Your task to perform on an android device: open sync settings in chrome Image 0: 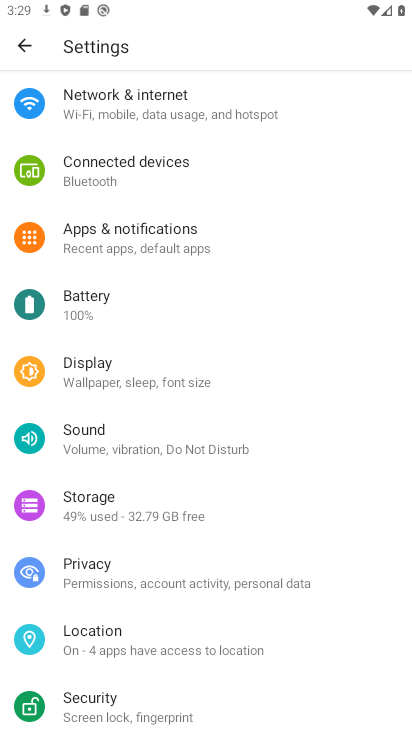
Step 0: press home button
Your task to perform on an android device: open sync settings in chrome Image 1: 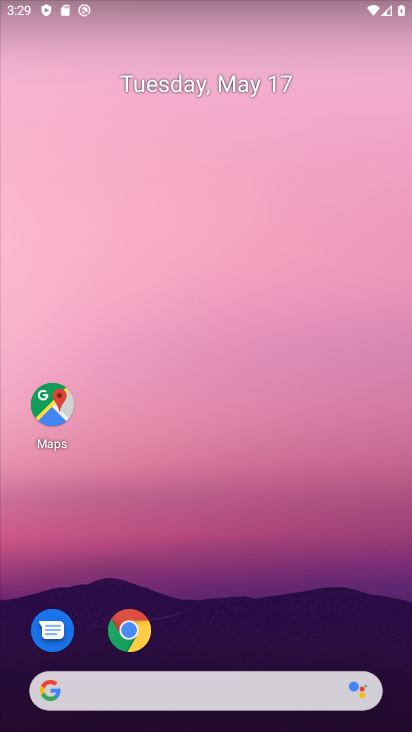
Step 1: click (119, 632)
Your task to perform on an android device: open sync settings in chrome Image 2: 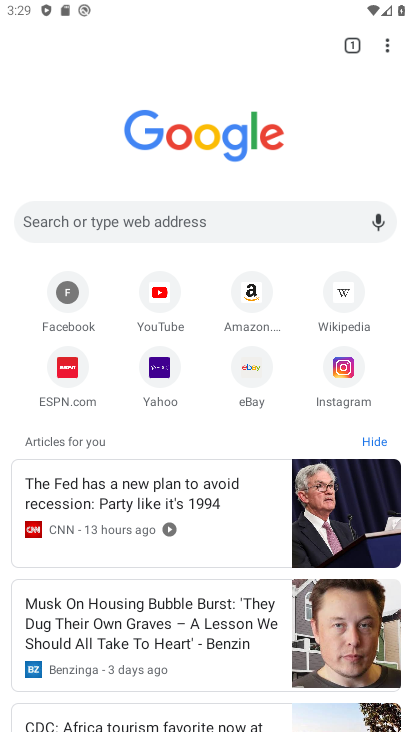
Step 2: drag from (394, 45) to (321, 380)
Your task to perform on an android device: open sync settings in chrome Image 3: 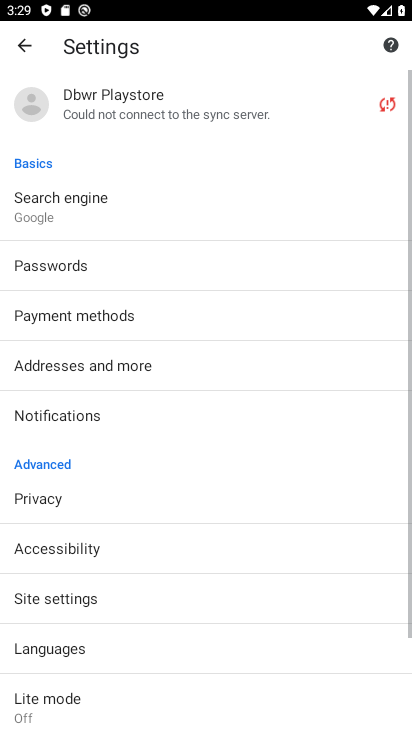
Step 3: drag from (145, 639) to (252, 413)
Your task to perform on an android device: open sync settings in chrome Image 4: 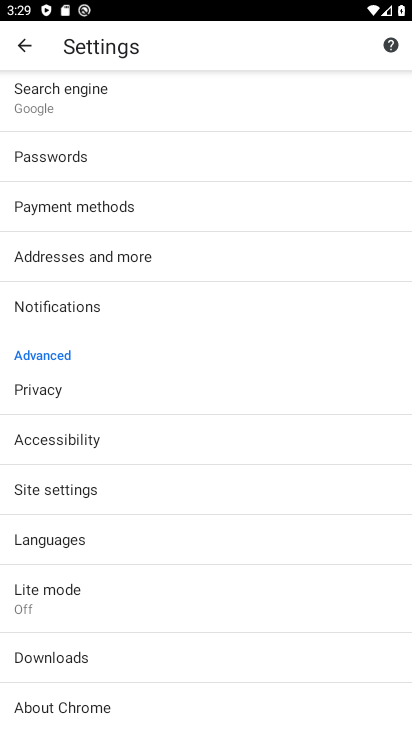
Step 4: drag from (173, 361) to (170, 604)
Your task to perform on an android device: open sync settings in chrome Image 5: 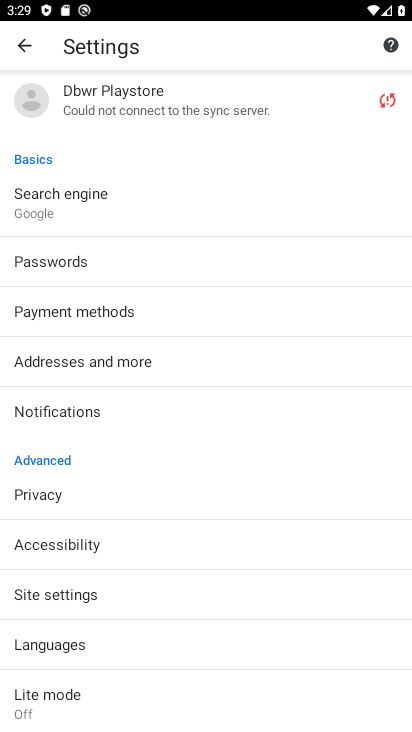
Step 5: click (257, 118)
Your task to perform on an android device: open sync settings in chrome Image 6: 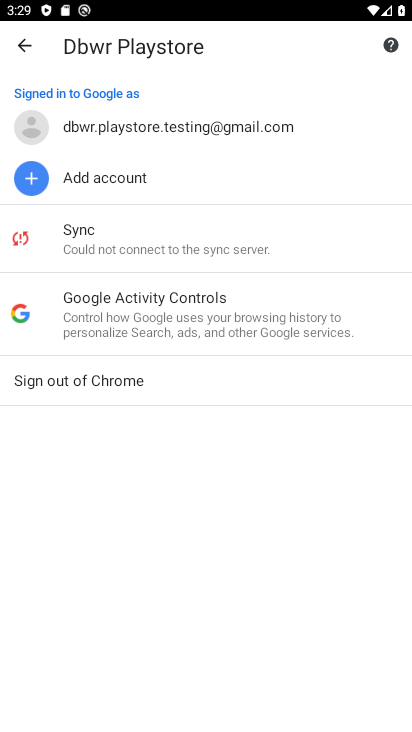
Step 6: click (234, 237)
Your task to perform on an android device: open sync settings in chrome Image 7: 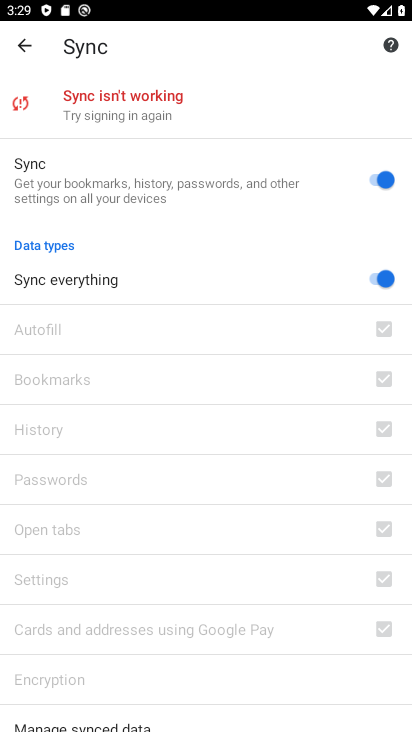
Step 7: task complete